Your task to perform on an android device: add a contact in the contacts app Image 0: 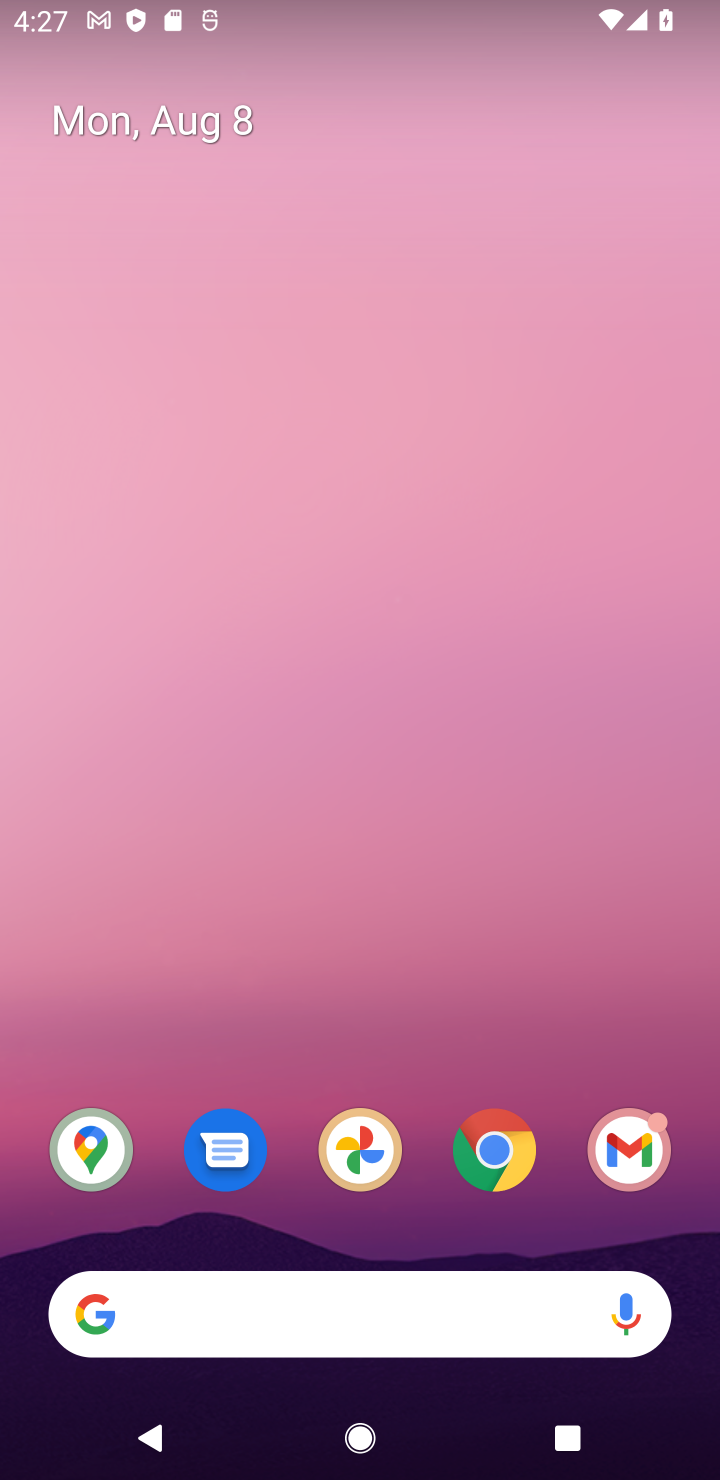
Step 0: drag from (418, 1236) to (298, 185)
Your task to perform on an android device: add a contact in the contacts app Image 1: 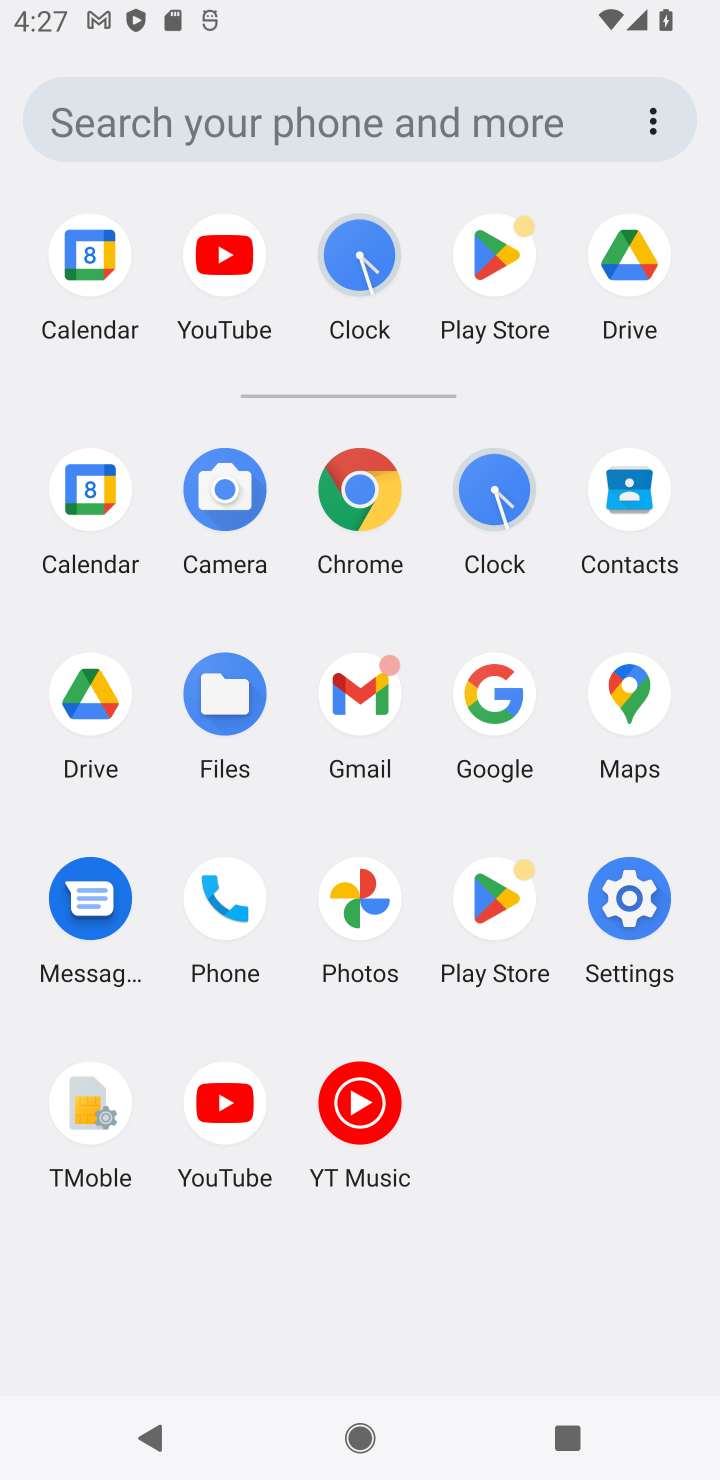
Step 1: click (637, 517)
Your task to perform on an android device: add a contact in the contacts app Image 2: 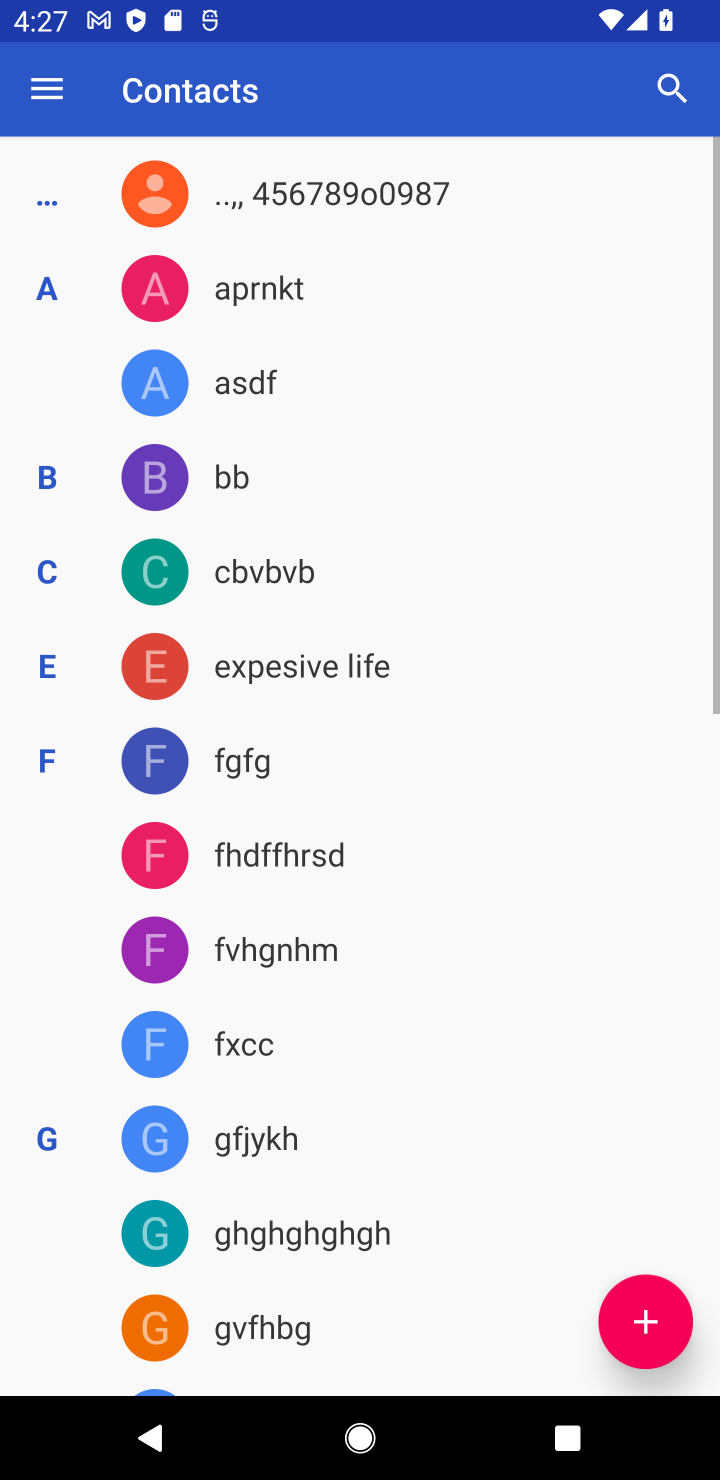
Step 2: task complete